Your task to perform on an android device: turn notification dots off Image 0: 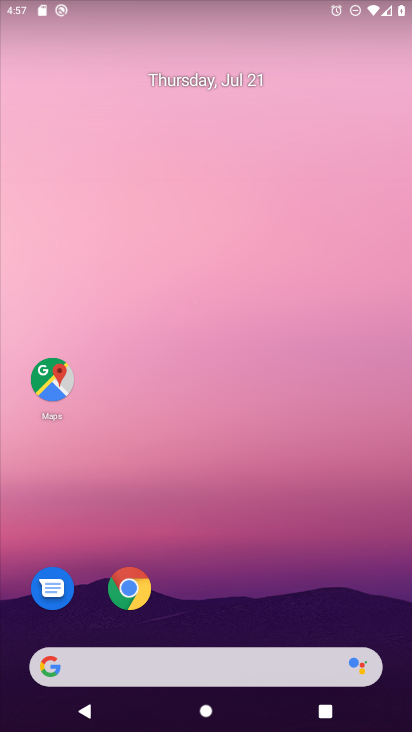
Step 0: drag from (354, 606) to (290, 262)
Your task to perform on an android device: turn notification dots off Image 1: 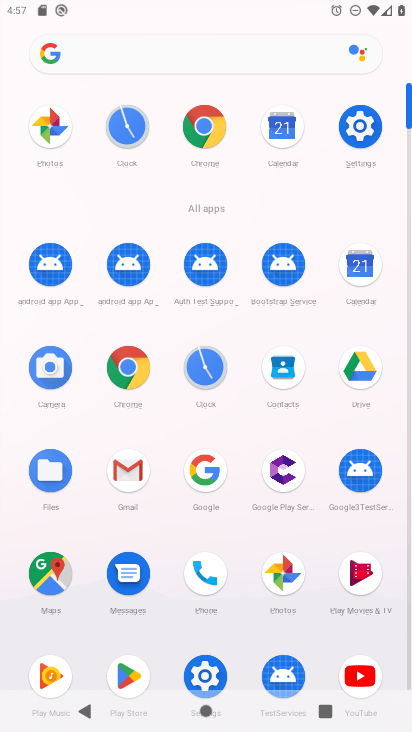
Step 1: click (353, 126)
Your task to perform on an android device: turn notification dots off Image 2: 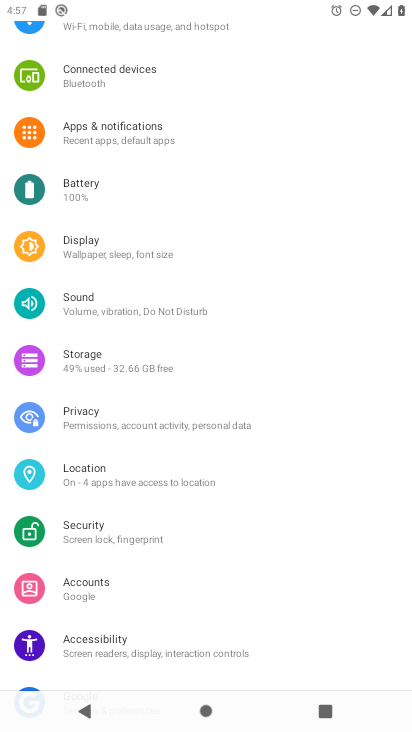
Step 2: click (207, 136)
Your task to perform on an android device: turn notification dots off Image 3: 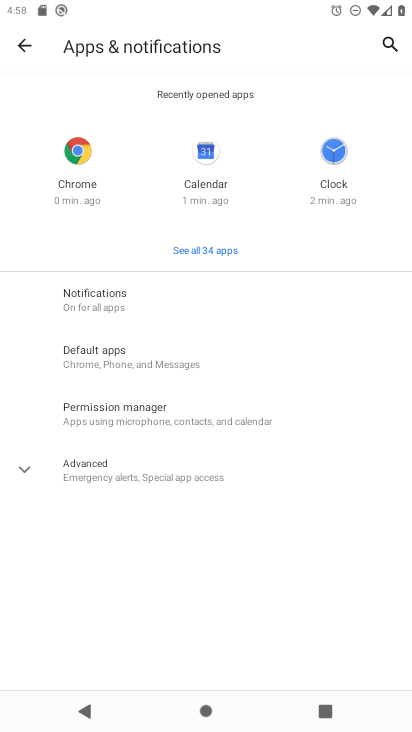
Step 3: click (211, 306)
Your task to perform on an android device: turn notification dots off Image 4: 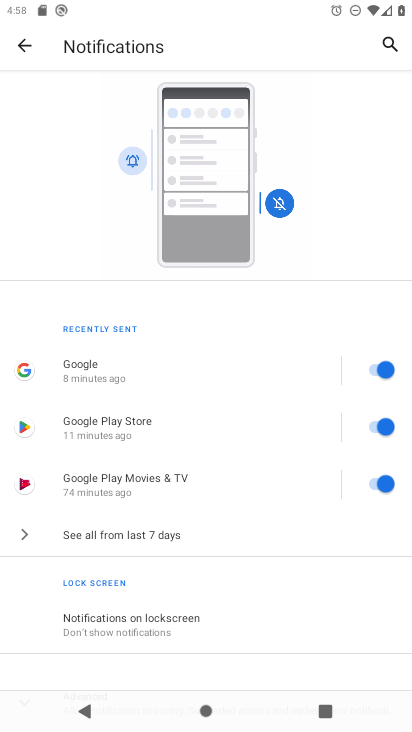
Step 4: drag from (263, 647) to (252, 308)
Your task to perform on an android device: turn notification dots off Image 5: 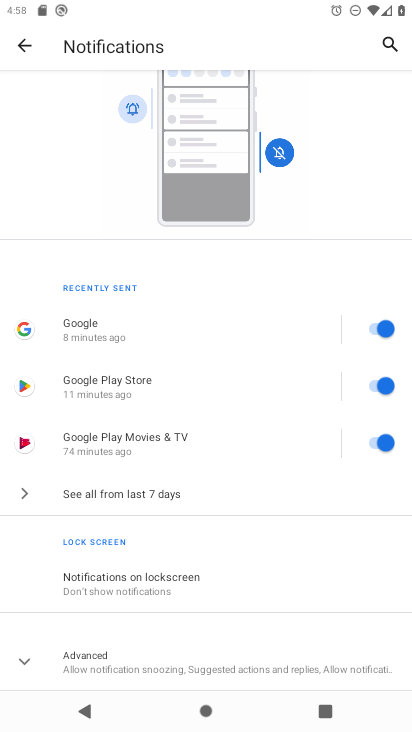
Step 5: click (276, 670)
Your task to perform on an android device: turn notification dots off Image 6: 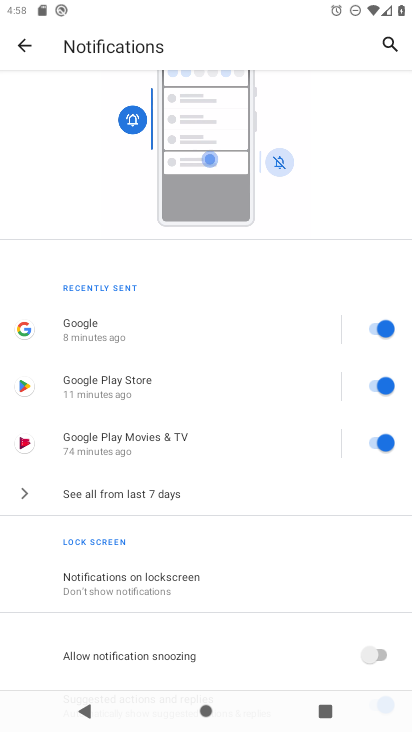
Step 6: drag from (275, 666) to (268, 533)
Your task to perform on an android device: turn notification dots off Image 7: 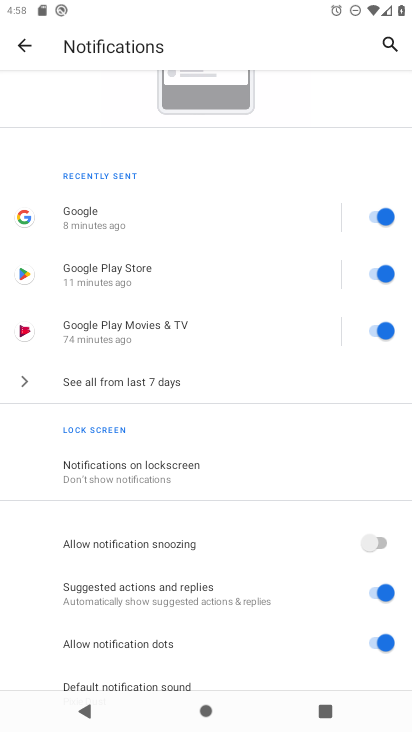
Step 7: click (379, 637)
Your task to perform on an android device: turn notification dots off Image 8: 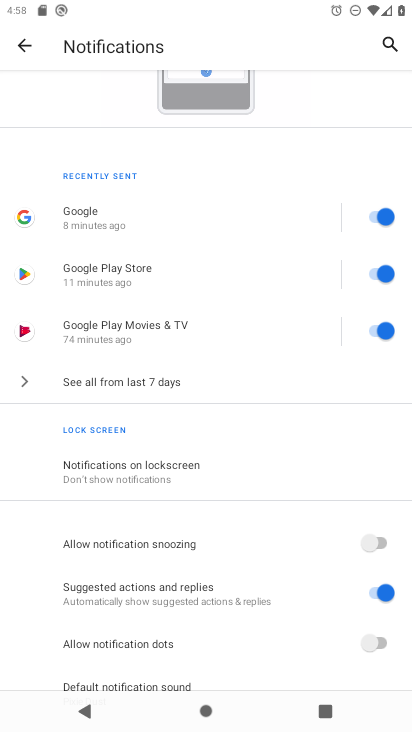
Step 8: task complete